Your task to perform on an android device: open the mobile data screen to see how much data has been used Image 0: 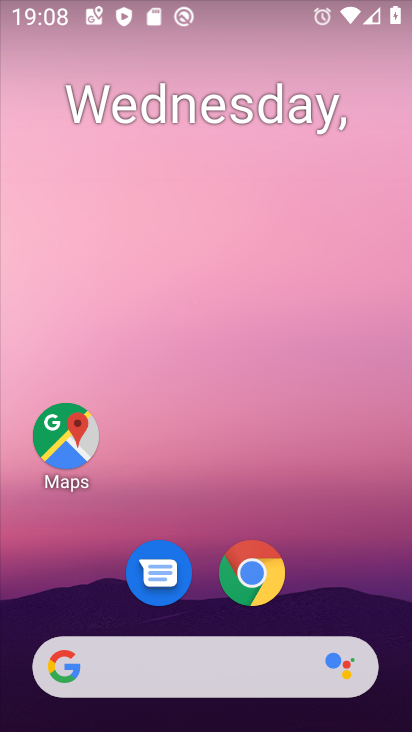
Step 0: drag from (343, 550) to (320, 59)
Your task to perform on an android device: open the mobile data screen to see how much data has been used Image 1: 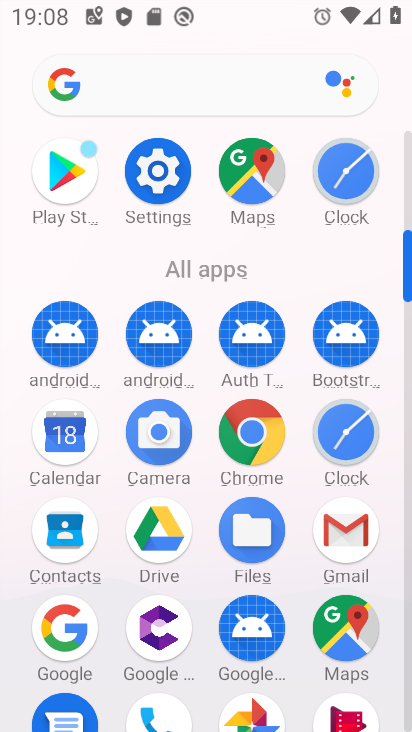
Step 1: drag from (334, 11) to (324, 584)
Your task to perform on an android device: open the mobile data screen to see how much data has been used Image 2: 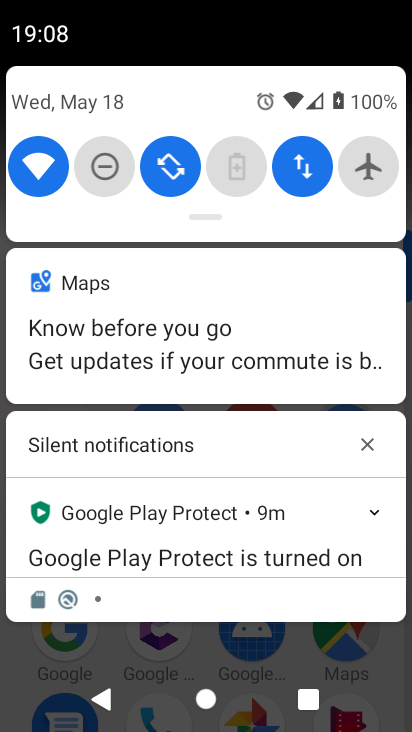
Step 2: click (299, 157)
Your task to perform on an android device: open the mobile data screen to see how much data has been used Image 3: 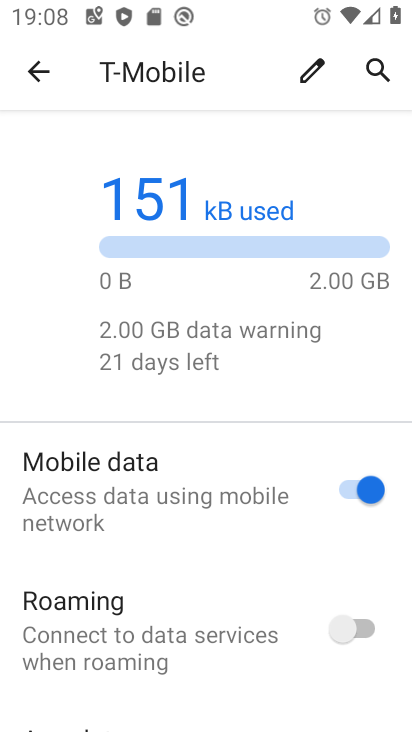
Step 3: task complete